Your task to perform on an android device: open chrome and create a bookmark for the current page Image 0: 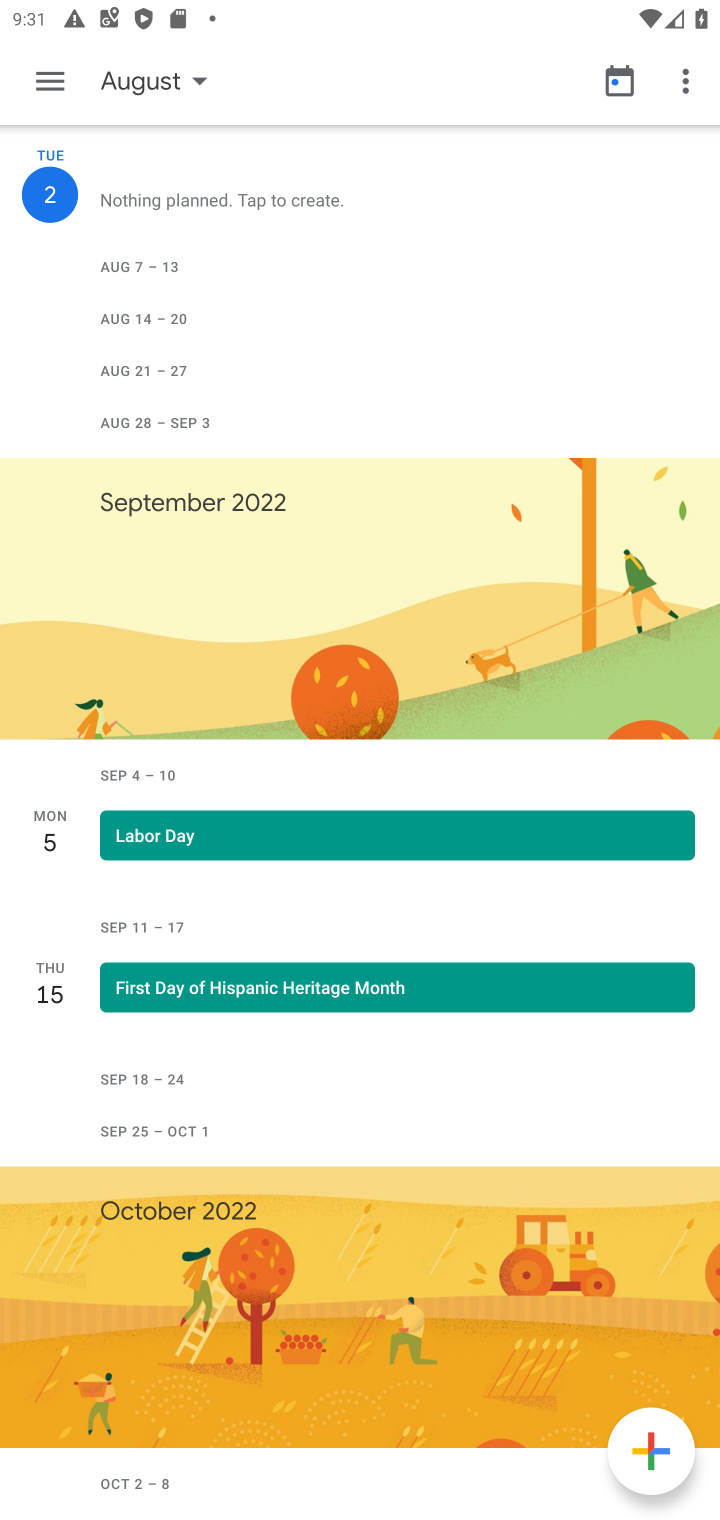
Step 0: task complete